Your task to perform on an android device: stop showing notifications on the lock screen Image 0: 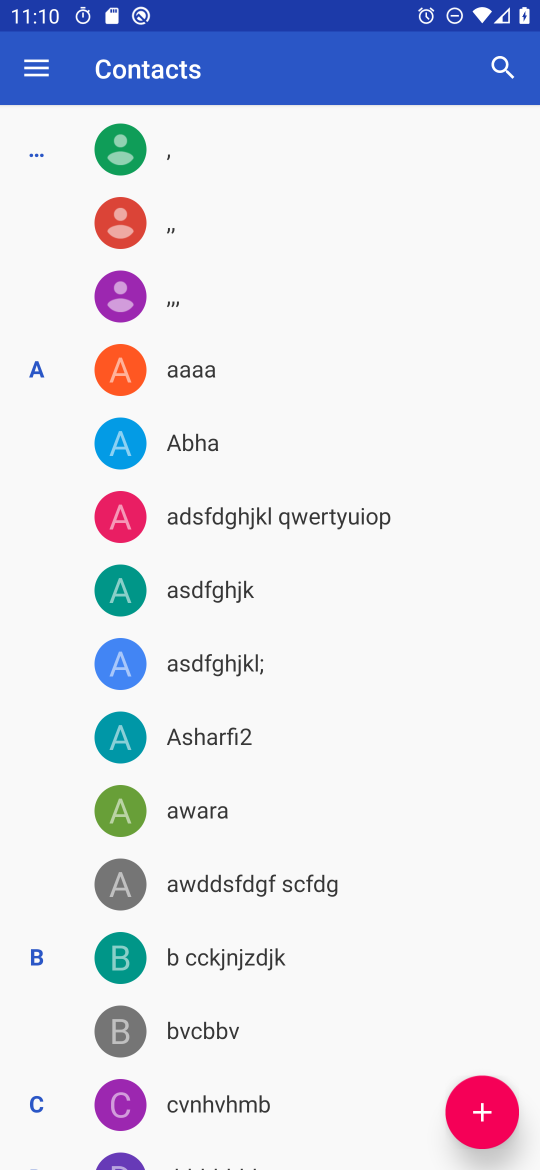
Step 0: press home button
Your task to perform on an android device: stop showing notifications on the lock screen Image 1: 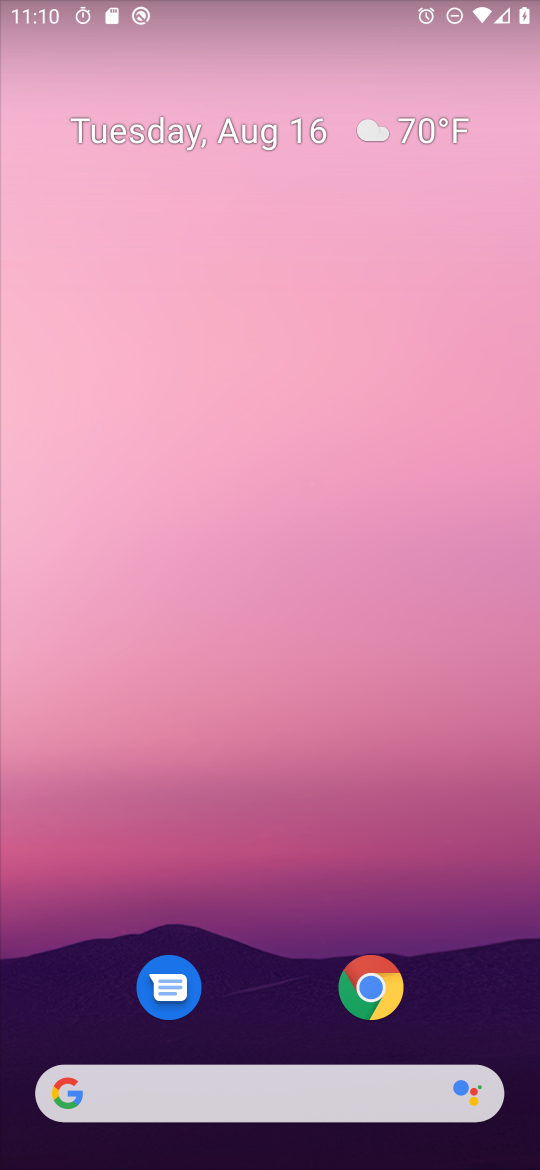
Step 1: drag from (25, 1124) to (279, 517)
Your task to perform on an android device: stop showing notifications on the lock screen Image 2: 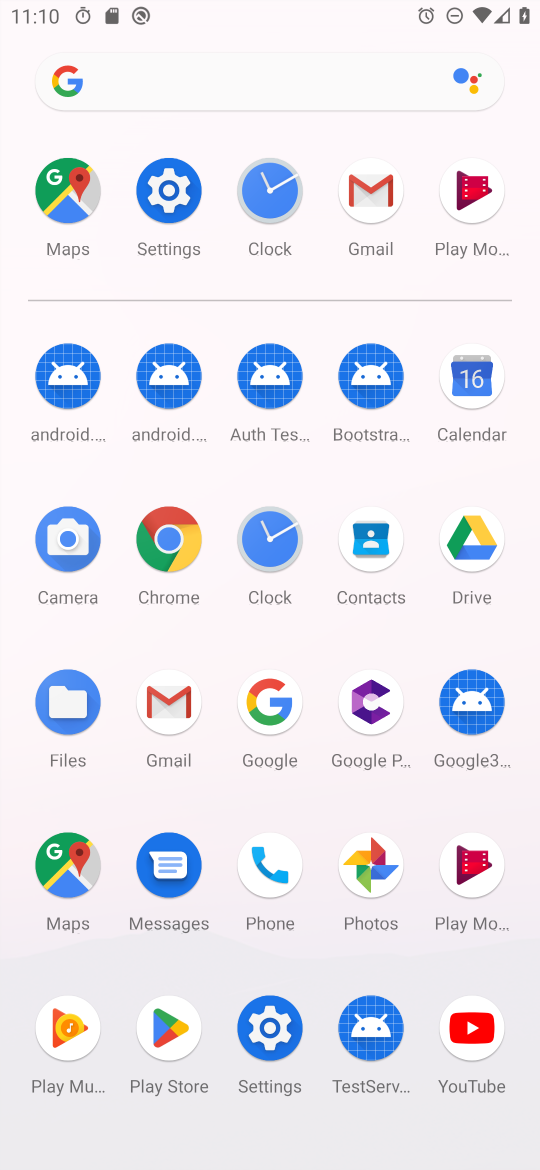
Step 2: click (283, 1037)
Your task to perform on an android device: stop showing notifications on the lock screen Image 3: 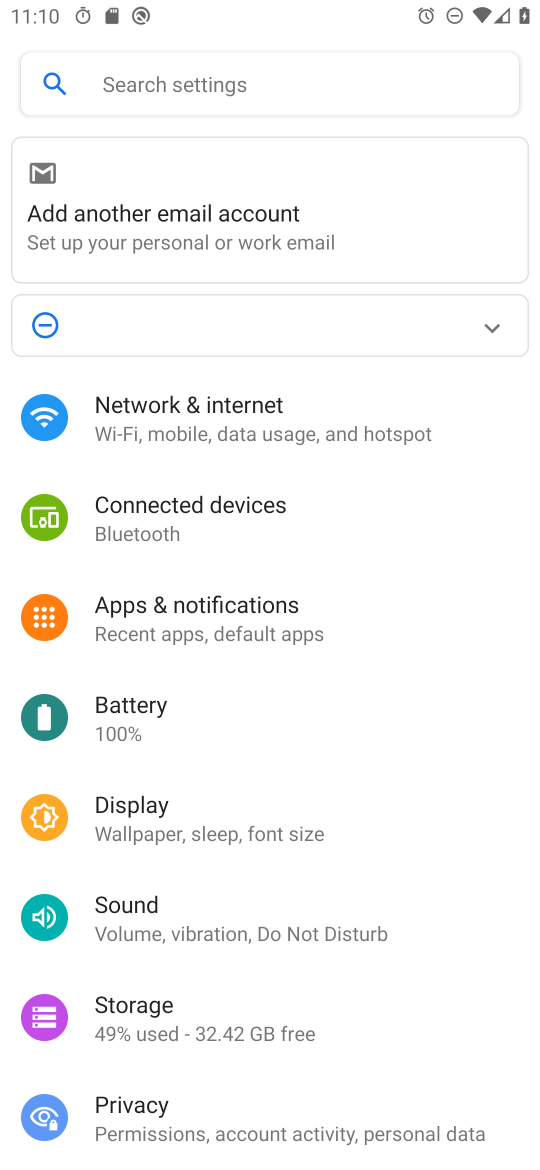
Step 3: click (202, 626)
Your task to perform on an android device: stop showing notifications on the lock screen Image 4: 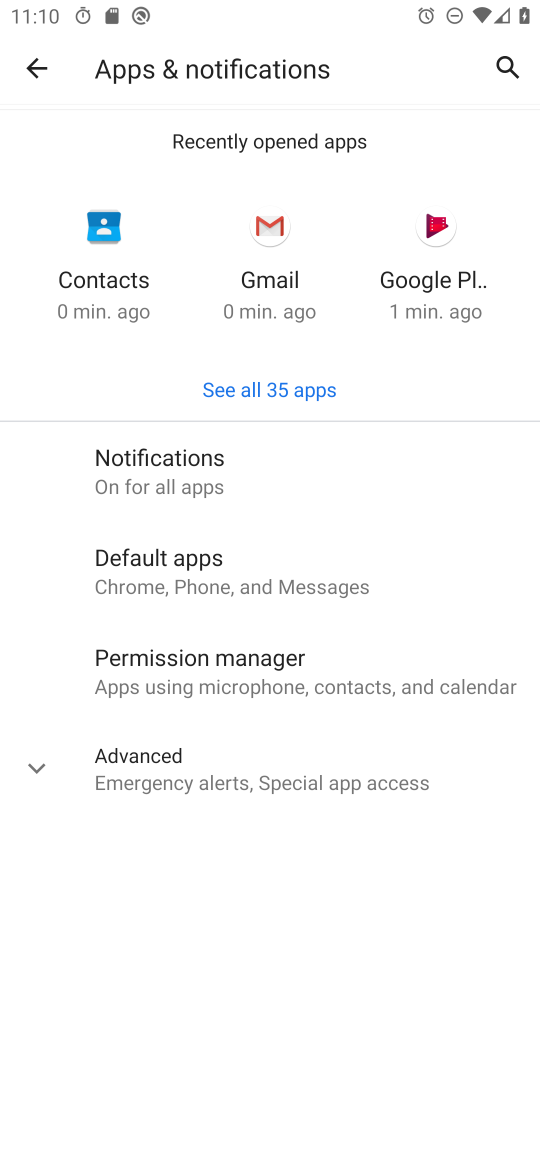
Step 4: click (201, 745)
Your task to perform on an android device: stop showing notifications on the lock screen Image 5: 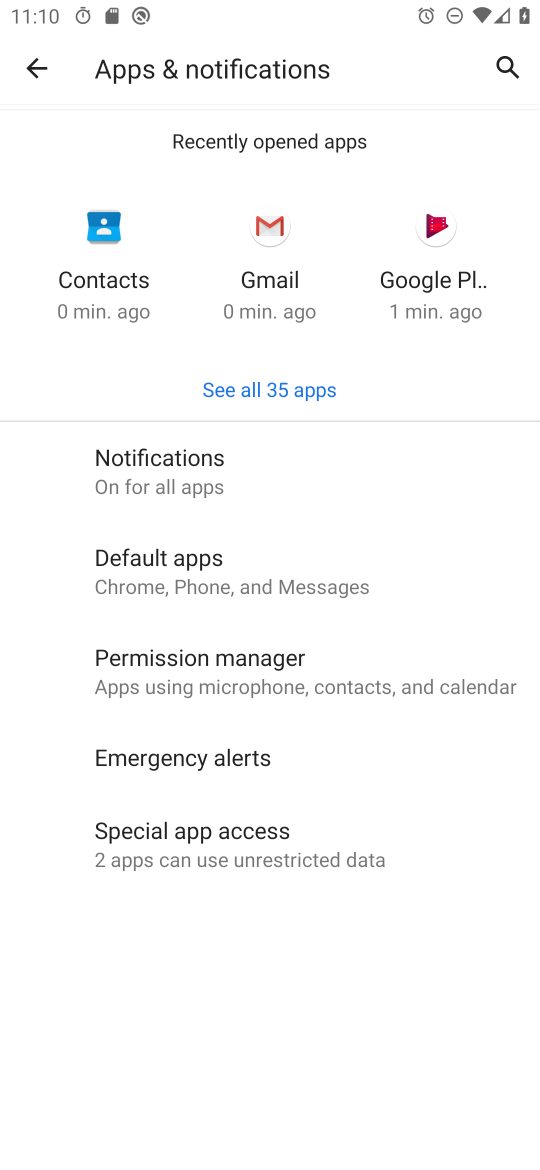
Step 5: click (210, 482)
Your task to perform on an android device: stop showing notifications on the lock screen Image 6: 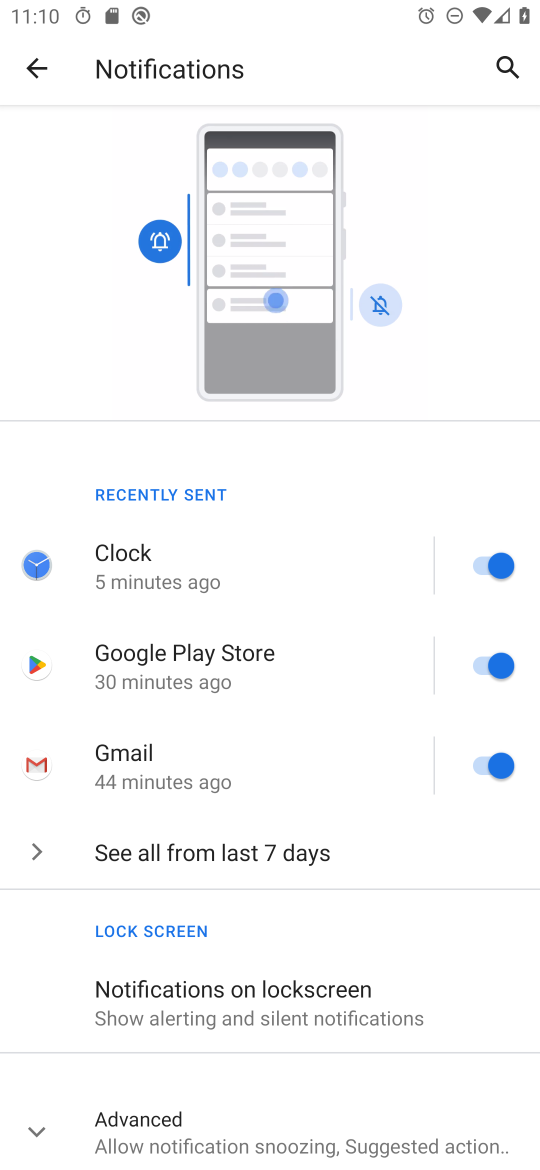
Step 6: click (234, 1008)
Your task to perform on an android device: stop showing notifications on the lock screen Image 7: 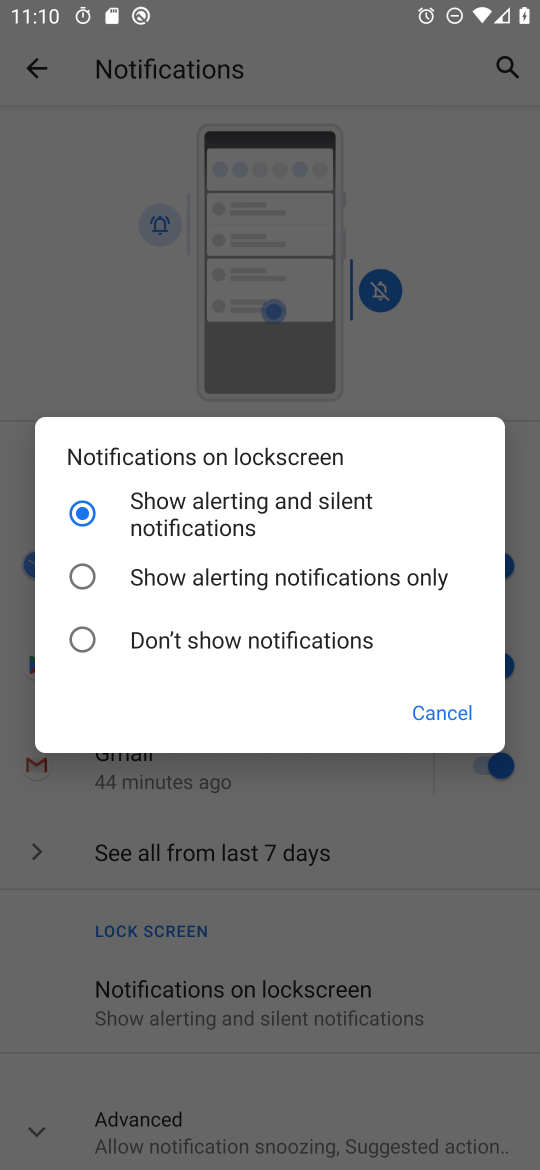
Step 7: task complete